Your task to perform on an android device: Do I have any events this weekend? Image 0: 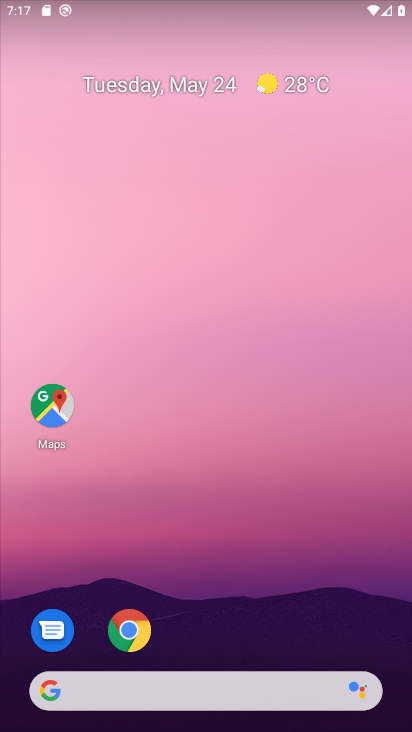
Step 0: drag from (210, 723) to (168, 255)
Your task to perform on an android device: Do I have any events this weekend? Image 1: 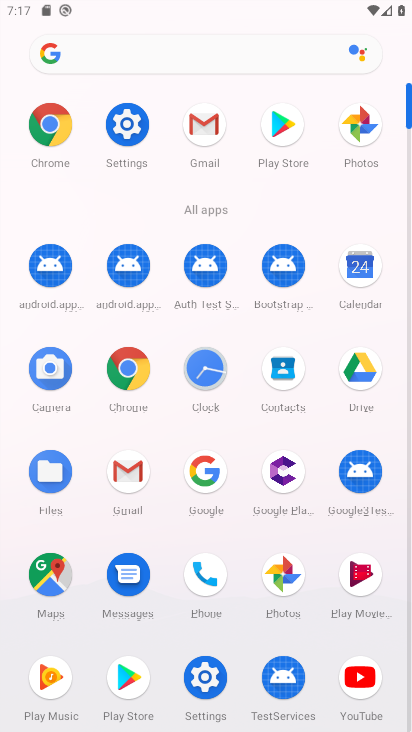
Step 1: click (347, 288)
Your task to perform on an android device: Do I have any events this weekend? Image 2: 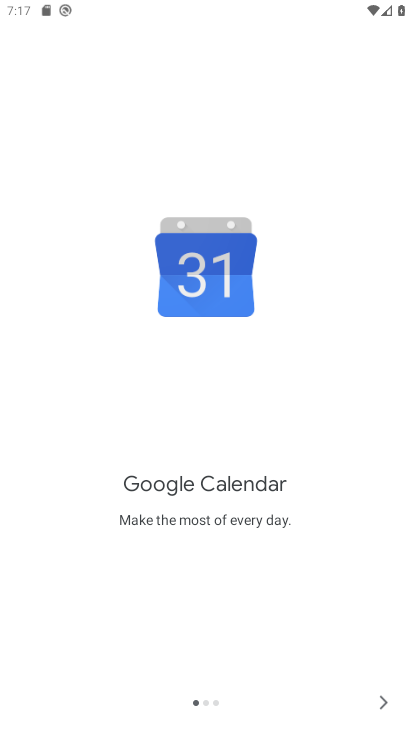
Step 2: click (393, 697)
Your task to perform on an android device: Do I have any events this weekend? Image 3: 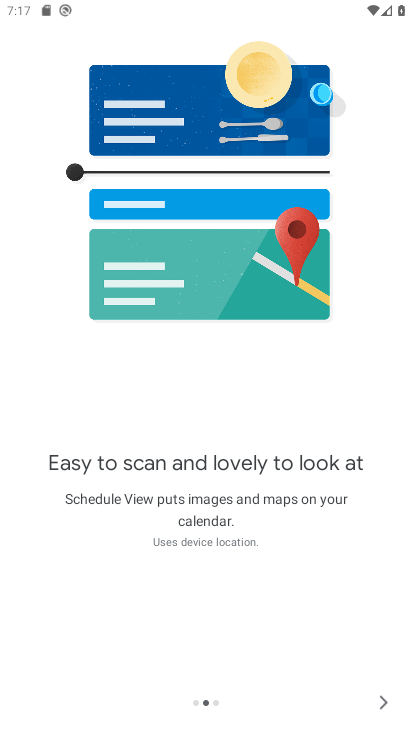
Step 3: click (373, 693)
Your task to perform on an android device: Do I have any events this weekend? Image 4: 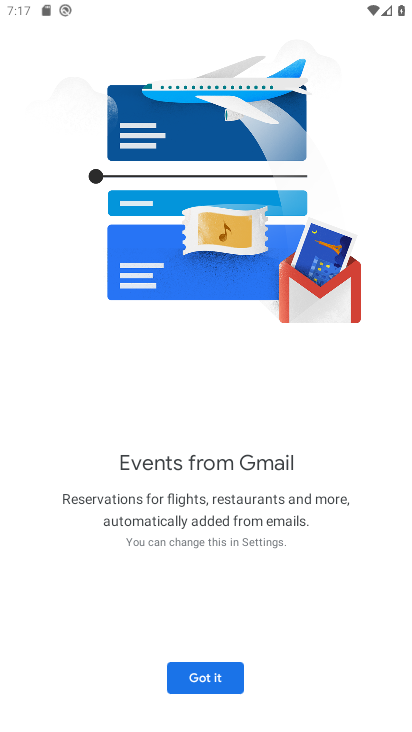
Step 4: click (198, 677)
Your task to perform on an android device: Do I have any events this weekend? Image 5: 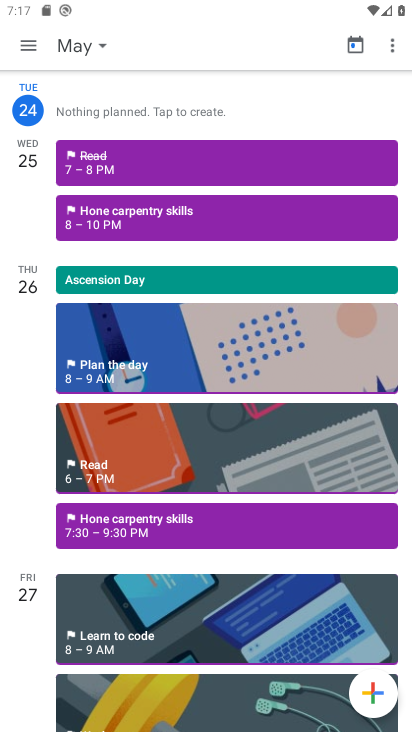
Step 5: task complete